Your task to perform on an android device: check the backup settings in the google photos Image 0: 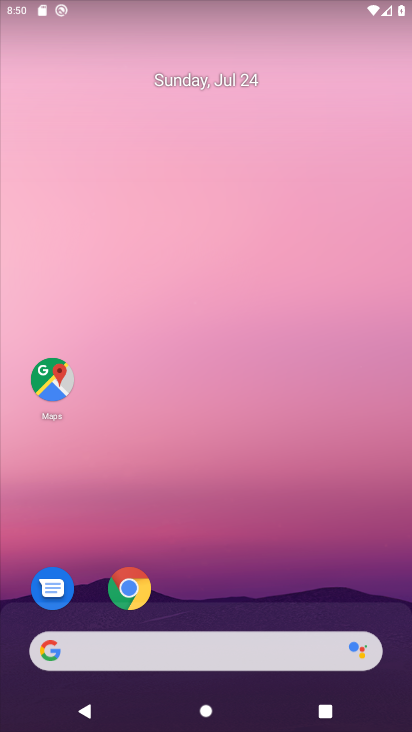
Step 0: drag from (214, 664) to (267, 287)
Your task to perform on an android device: check the backup settings in the google photos Image 1: 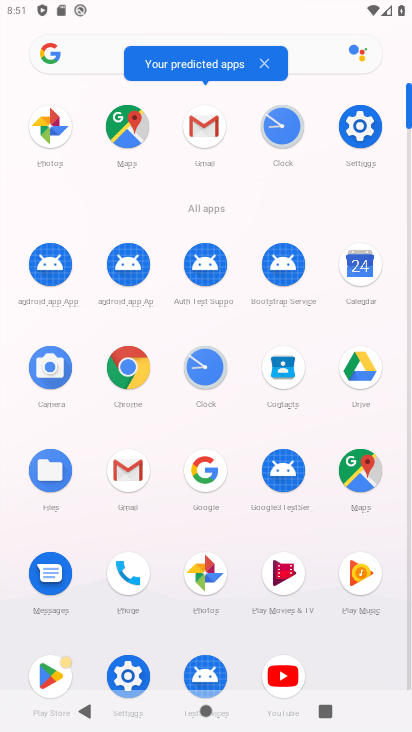
Step 1: click (210, 588)
Your task to perform on an android device: check the backup settings in the google photos Image 2: 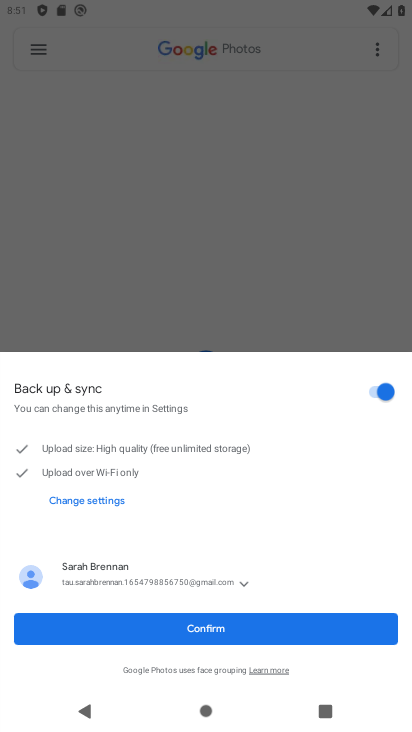
Step 2: click (251, 624)
Your task to perform on an android device: check the backup settings in the google photos Image 3: 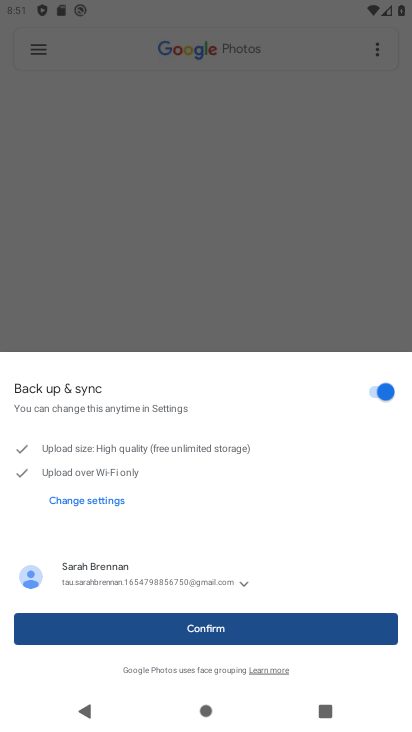
Step 3: click (264, 634)
Your task to perform on an android device: check the backup settings in the google photos Image 4: 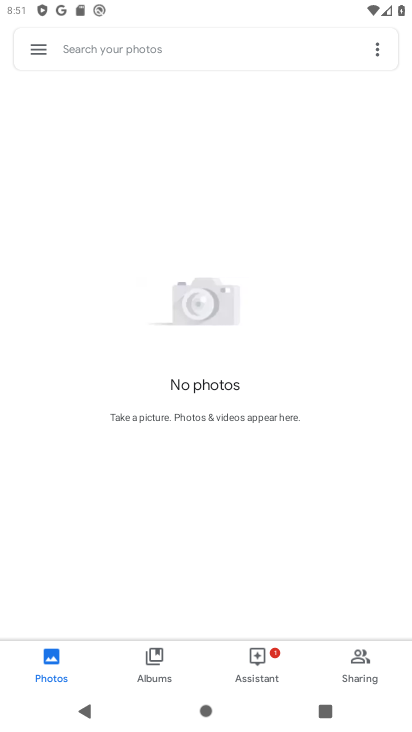
Step 4: click (38, 54)
Your task to perform on an android device: check the backup settings in the google photos Image 5: 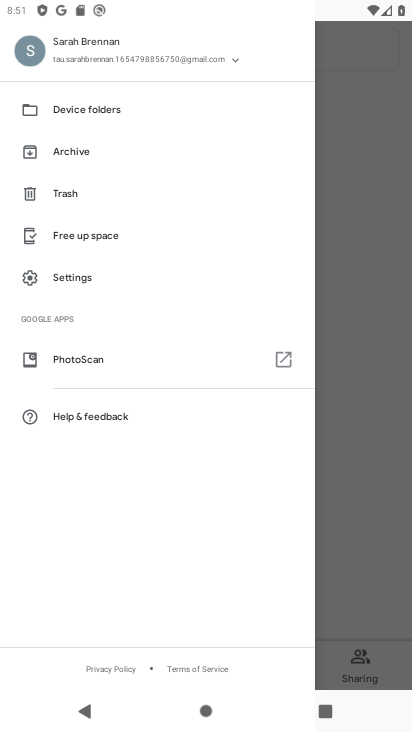
Step 5: click (92, 278)
Your task to perform on an android device: check the backup settings in the google photos Image 6: 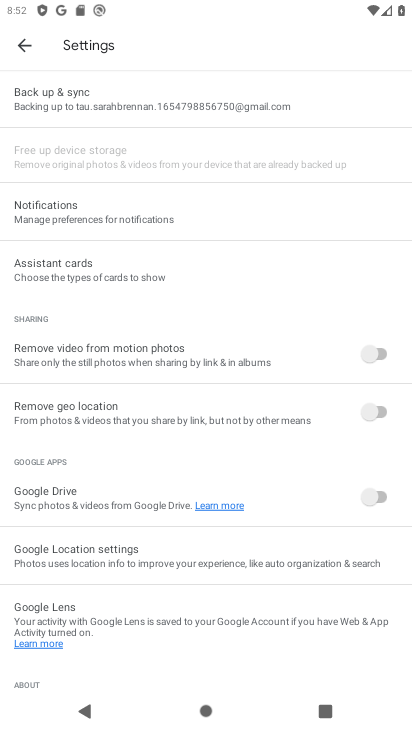
Step 6: click (53, 112)
Your task to perform on an android device: check the backup settings in the google photos Image 7: 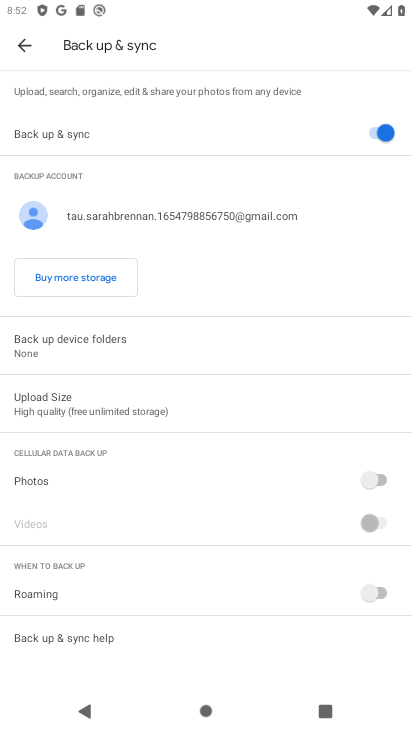
Step 7: task complete